Your task to perform on an android device: What's the weather going to be this weekend? Image 0: 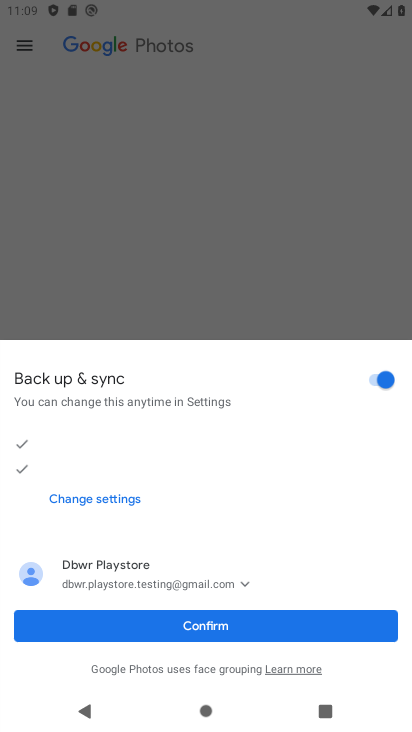
Step 0: press home button
Your task to perform on an android device: What's the weather going to be this weekend? Image 1: 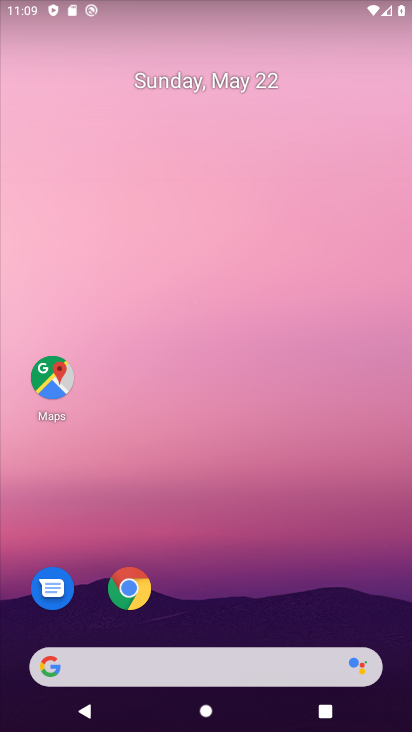
Step 1: click (193, 655)
Your task to perform on an android device: What's the weather going to be this weekend? Image 2: 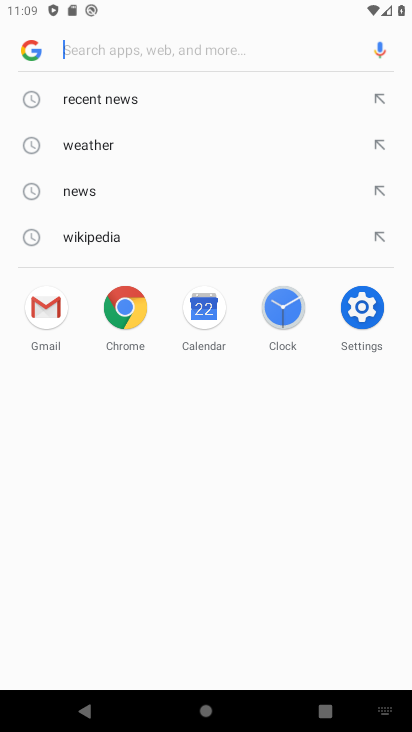
Step 2: click (49, 137)
Your task to perform on an android device: What's the weather going to be this weekend? Image 3: 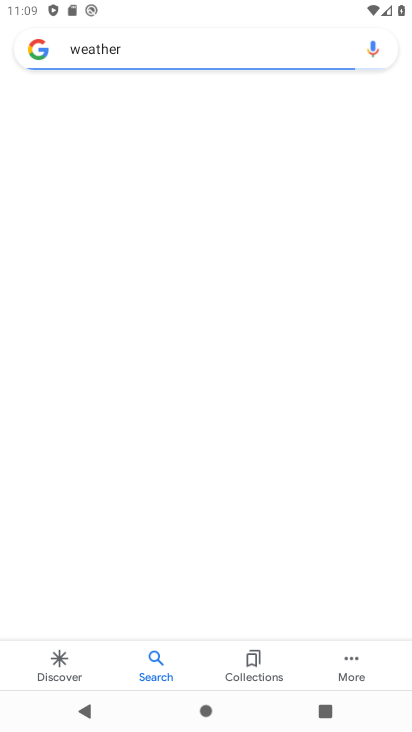
Step 3: task complete